Your task to perform on an android device: Empty the shopping cart on ebay. Add "bose quietcomfort 35" to the cart on ebay, then select checkout. Image 0: 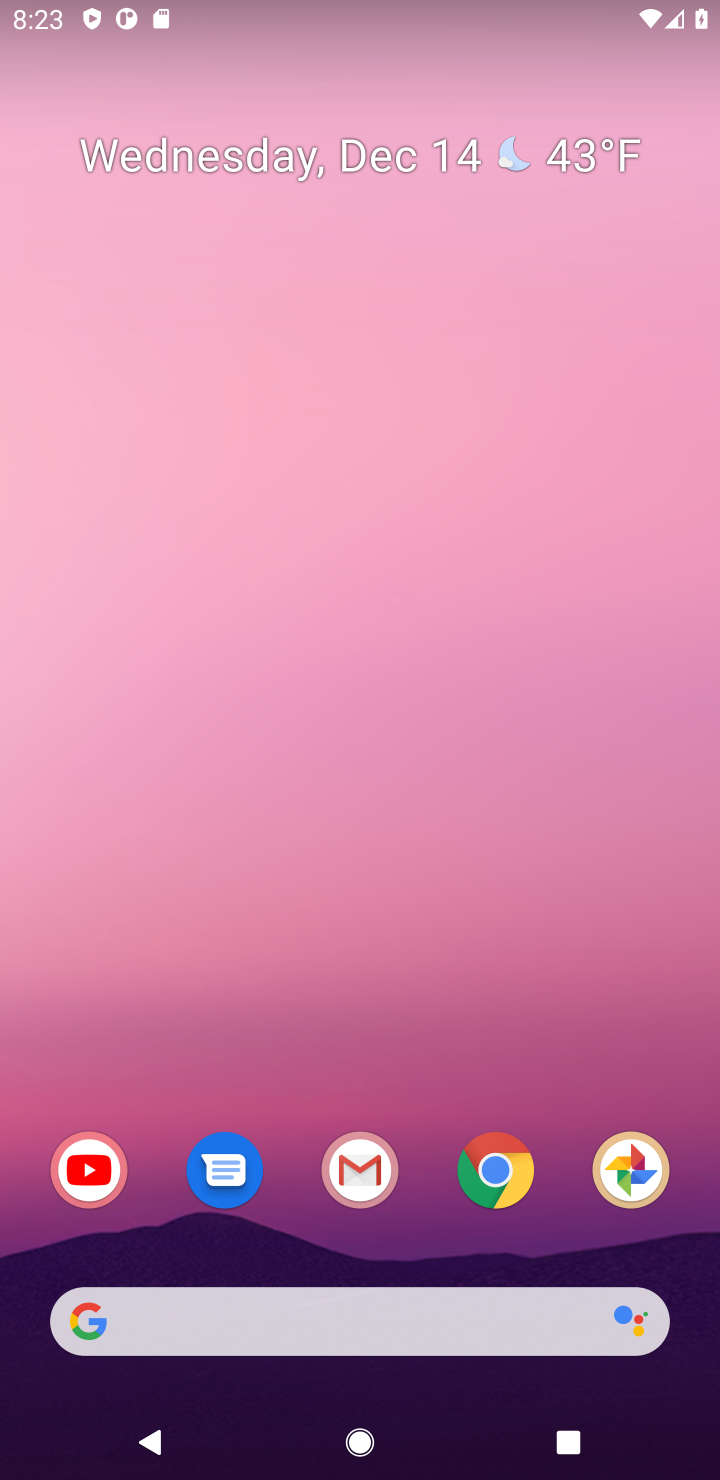
Step 0: click (512, 1173)
Your task to perform on an android device: Empty the shopping cart on ebay. Add "bose quietcomfort 35" to the cart on ebay, then select checkout. Image 1: 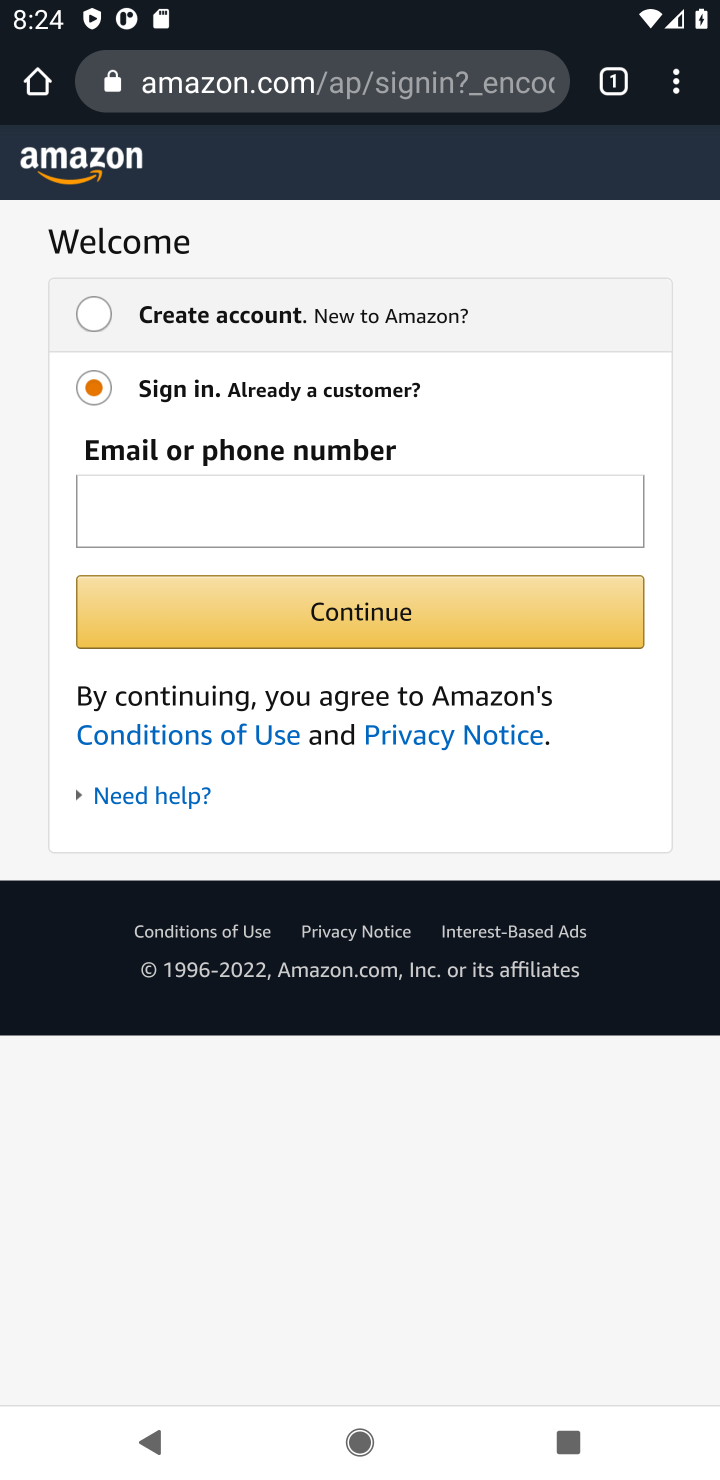
Step 1: click (383, 85)
Your task to perform on an android device: Empty the shopping cart on ebay. Add "bose quietcomfort 35" to the cart on ebay, then select checkout. Image 2: 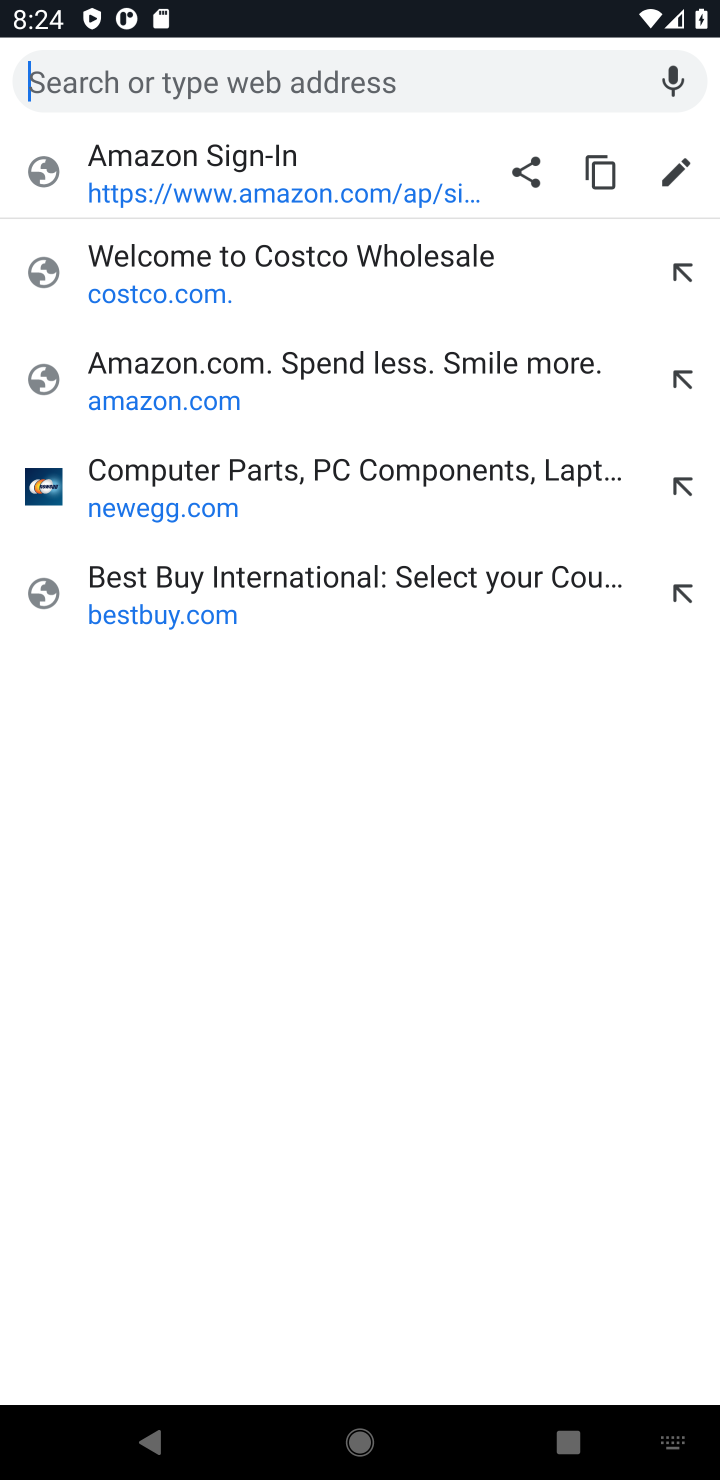
Step 2: type "EBAY"
Your task to perform on an android device: Empty the shopping cart on ebay. Add "bose quietcomfort 35" to the cart on ebay, then select checkout. Image 3: 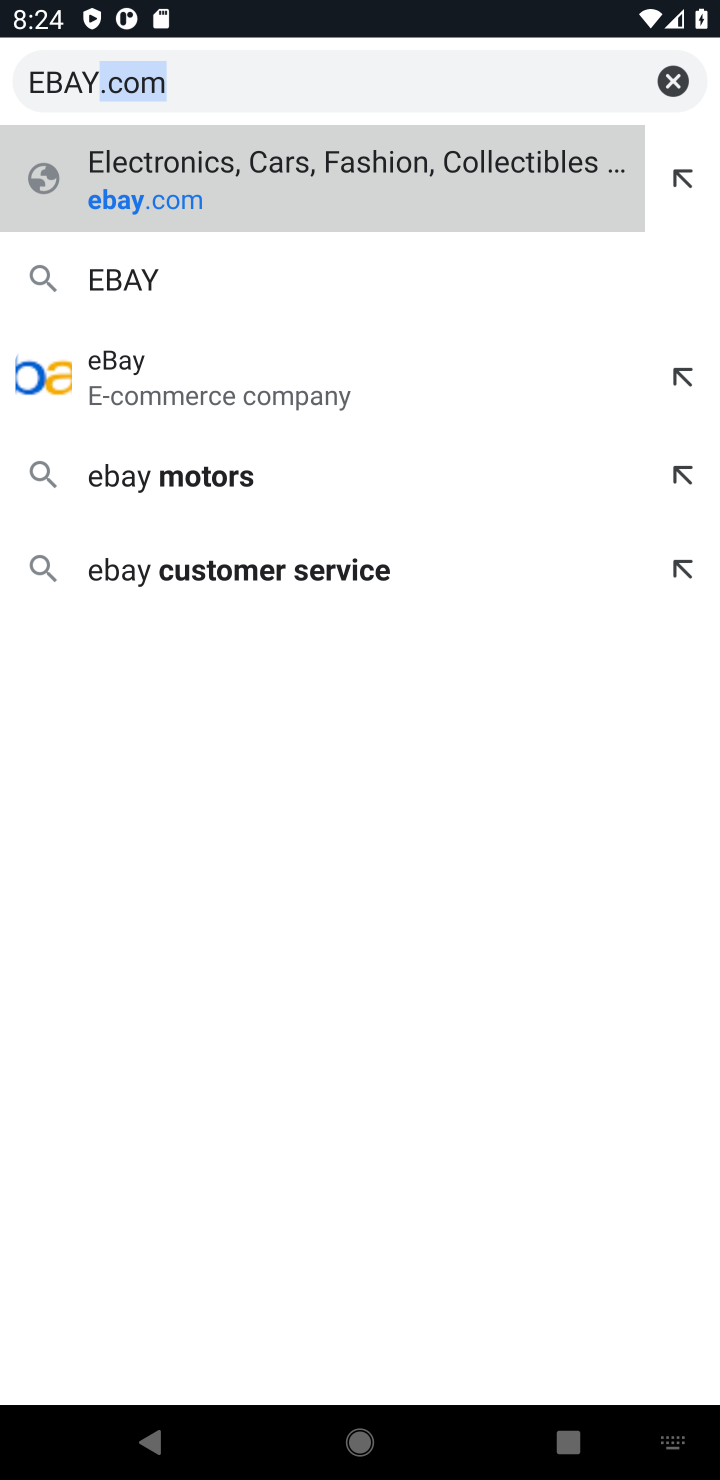
Step 3: click (230, 199)
Your task to perform on an android device: Empty the shopping cart on ebay. Add "bose quietcomfort 35" to the cart on ebay, then select checkout. Image 4: 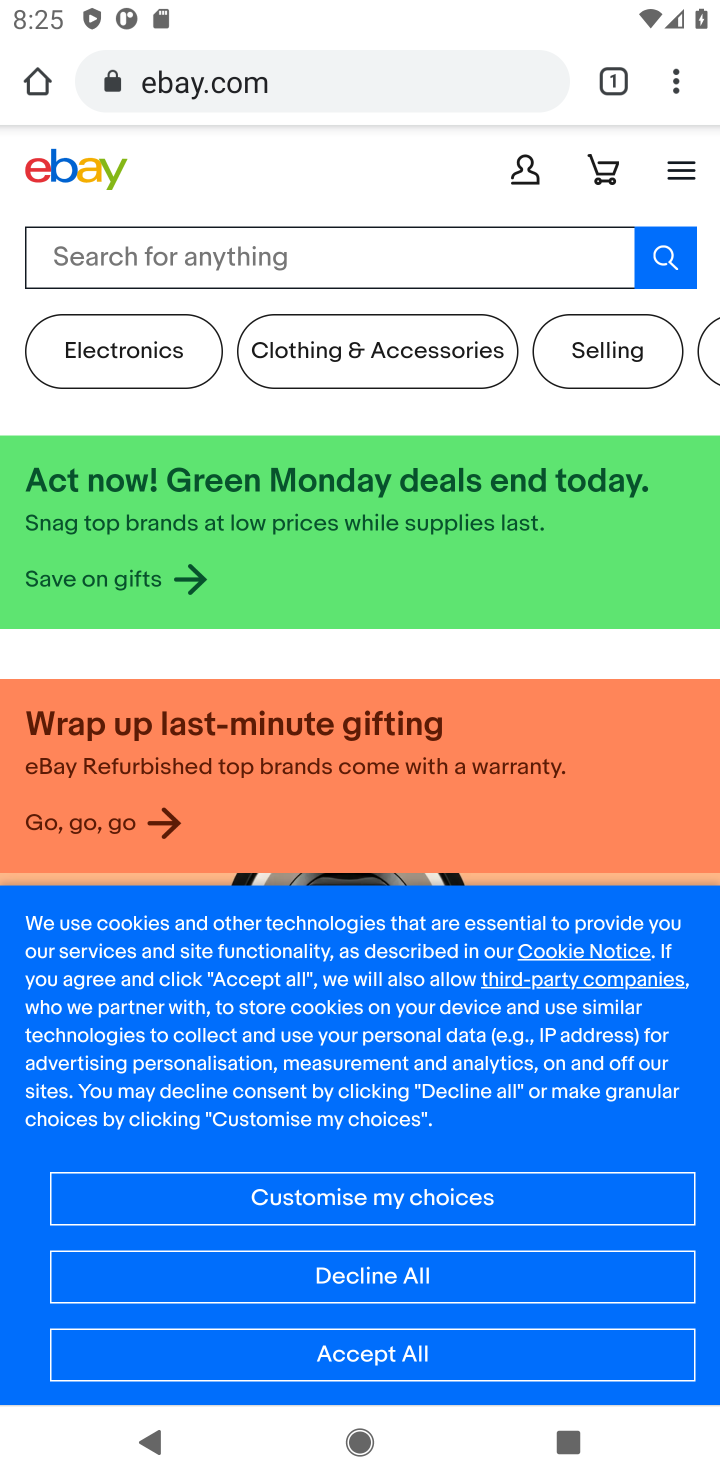
Step 4: click (364, 1356)
Your task to perform on an android device: Empty the shopping cart on ebay. Add "bose quietcomfort 35" to the cart on ebay, then select checkout. Image 5: 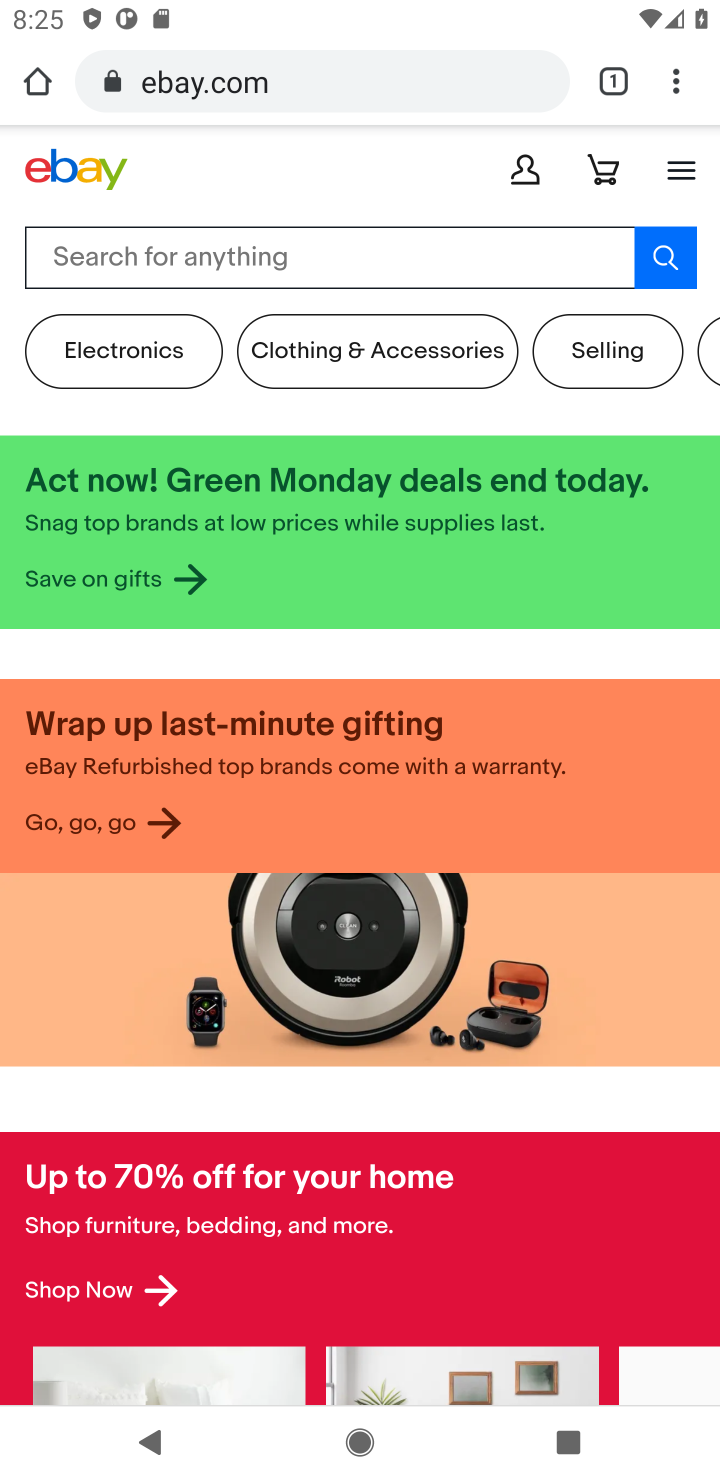
Step 5: click (232, 257)
Your task to perform on an android device: Empty the shopping cart on ebay. Add "bose quietcomfort 35" to the cart on ebay, then select checkout. Image 6: 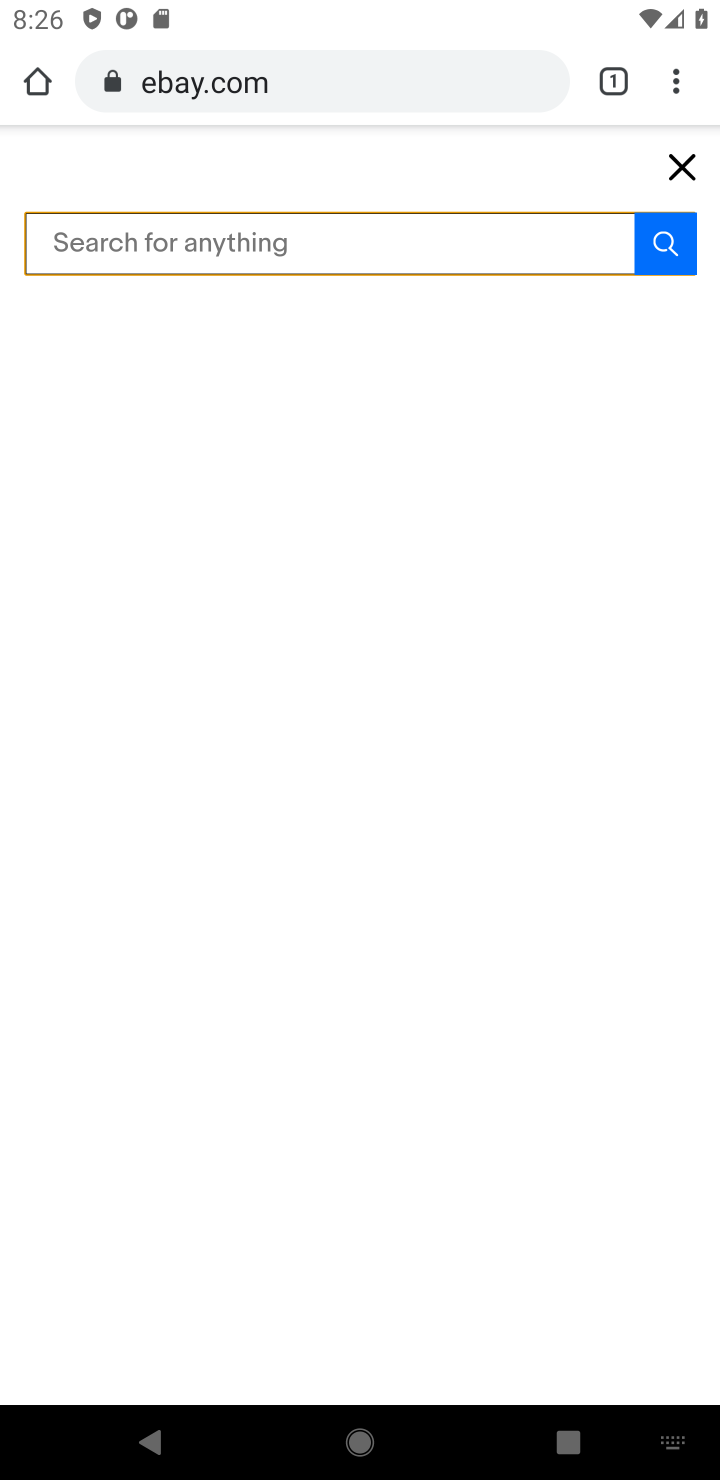
Step 6: type "bose quietcomfort 35"
Your task to perform on an android device: Empty the shopping cart on ebay. Add "bose quietcomfort 35" to the cart on ebay, then select checkout. Image 7: 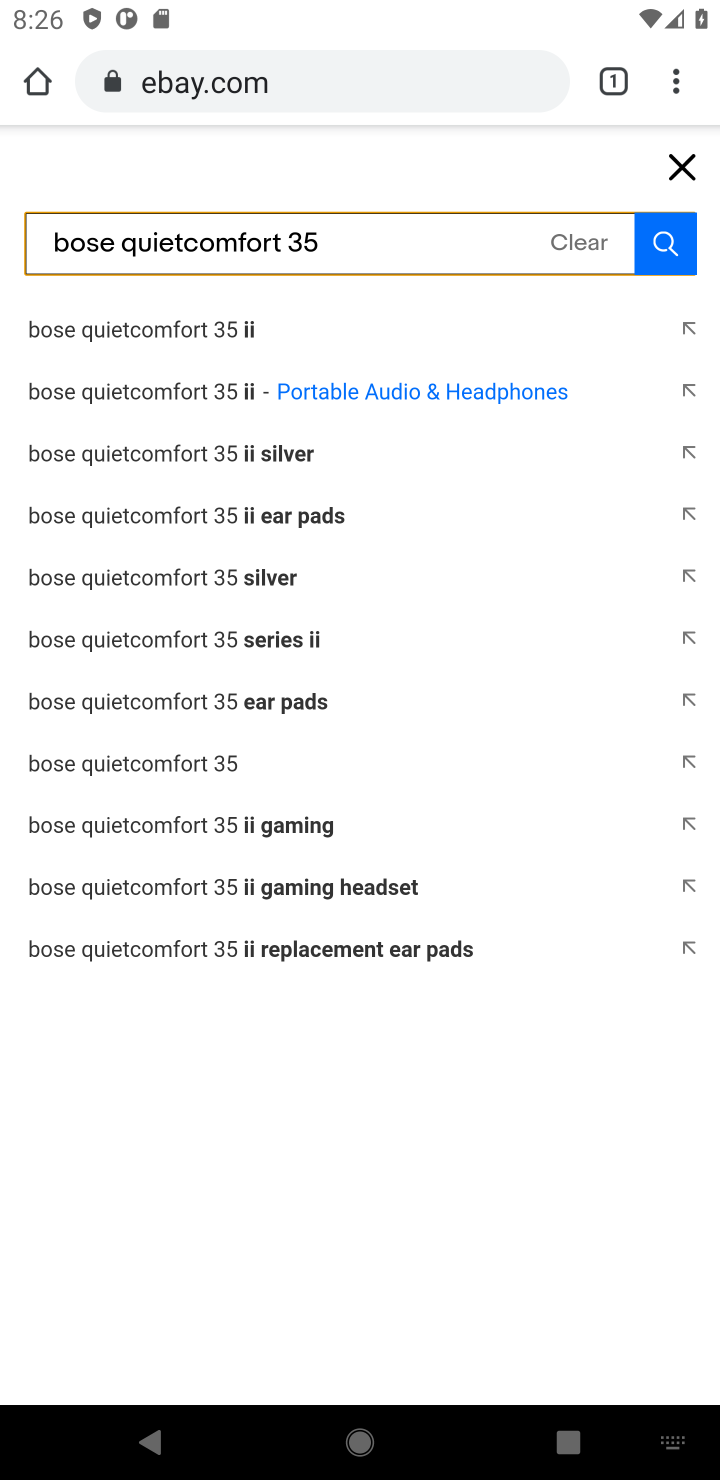
Step 7: click (244, 330)
Your task to perform on an android device: Empty the shopping cart on ebay. Add "bose quietcomfort 35" to the cart on ebay, then select checkout. Image 8: 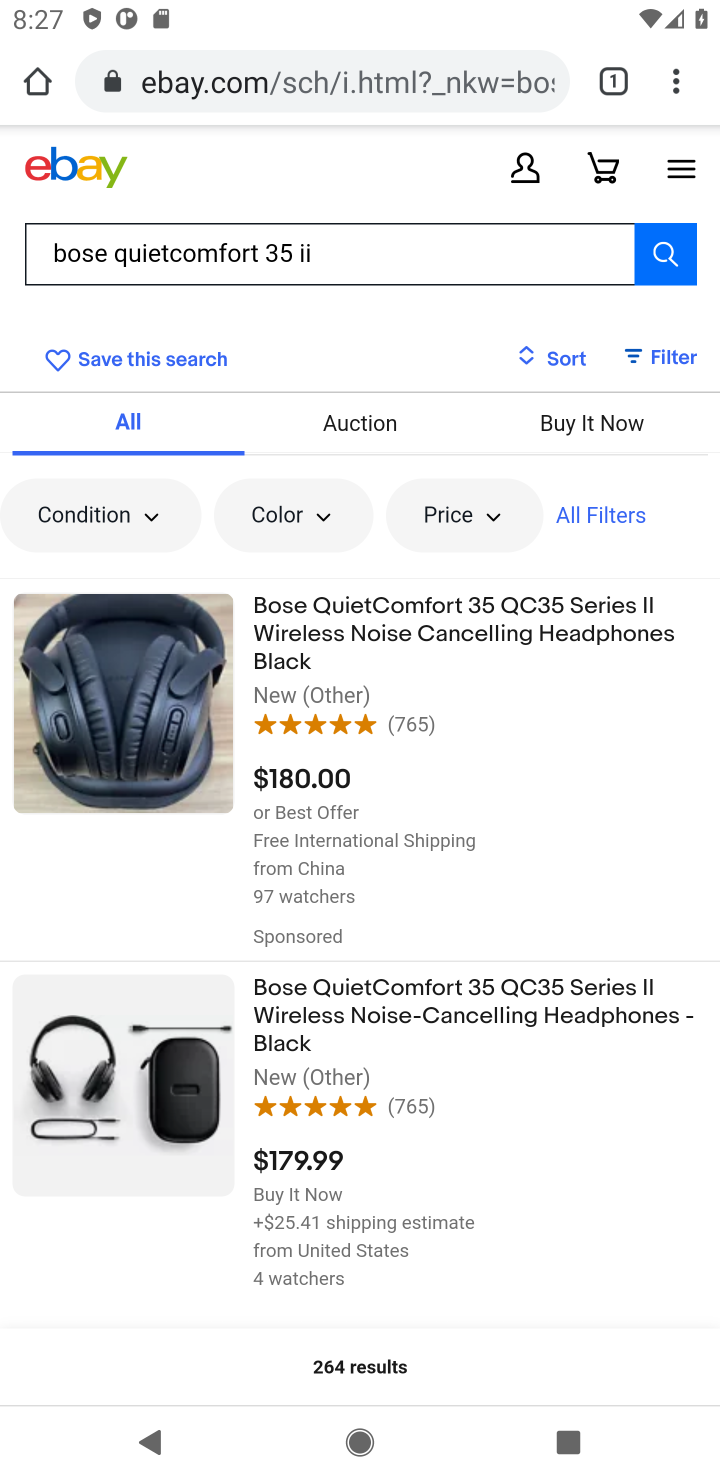
Step 8: click (508, 637)
Your task to perform on an android device: Empty the shopping cart on ebay. Add "bose quietcomfort 35" to the cart on ebay, then select checkout. Image 9: 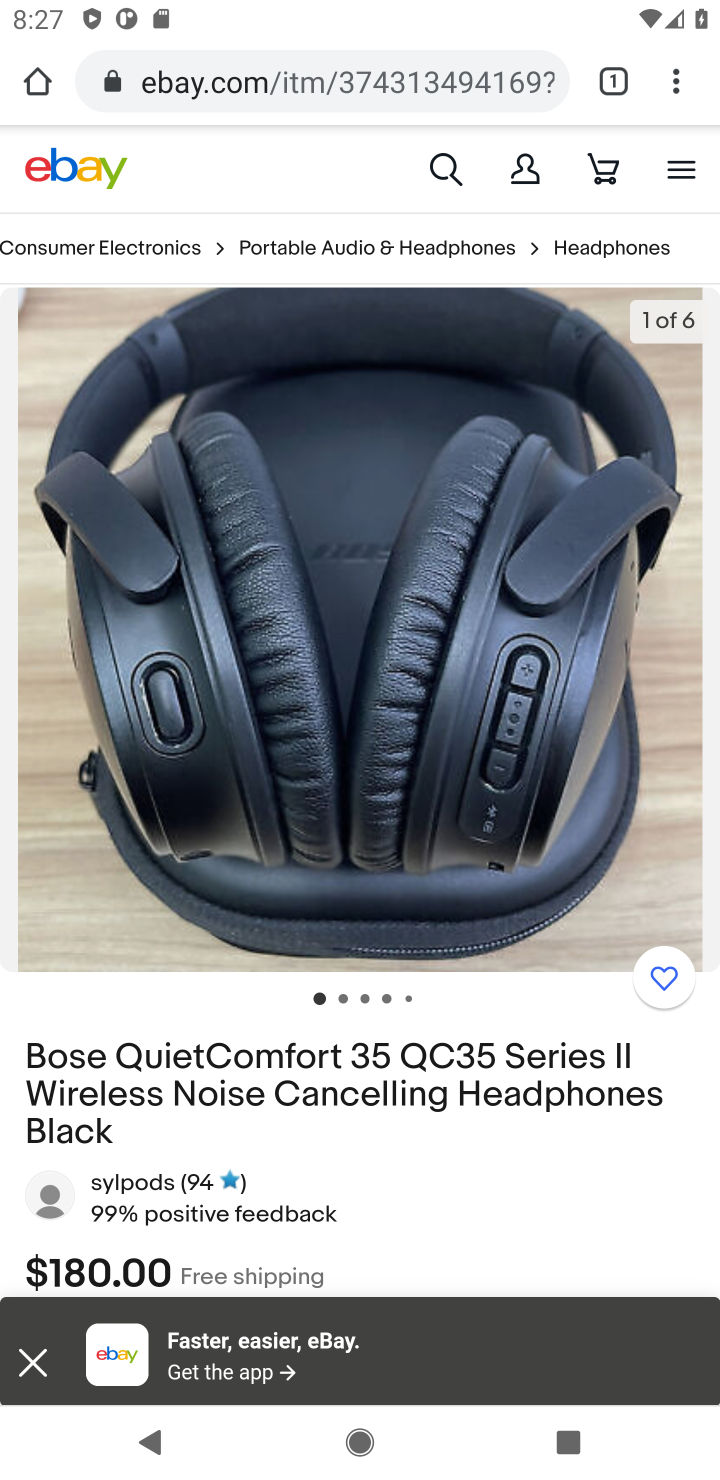
Step 9: drag from (469, 1033) to (466, 160)
Your task to perform on an android device: Empty the shopping cart on ebay. Add "bose quietcomfort 35" to the cart on ebay, then select checkout. Image 10: 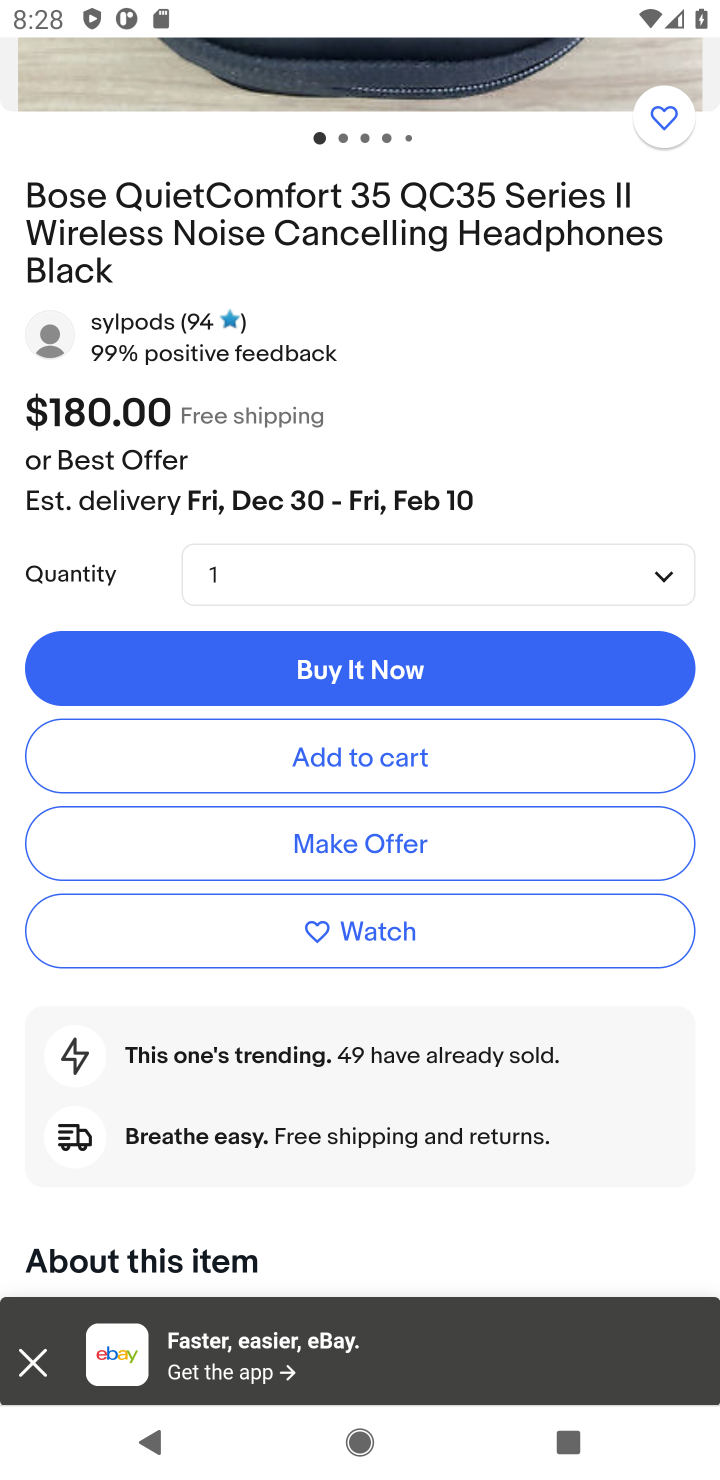
Step 10: click (402, 756)
Your task to perform on an android device: Empty the shopping cart on ebay. Add "bose quietcomfort 35" to the cart on ebay, then select checkout. Image 11: 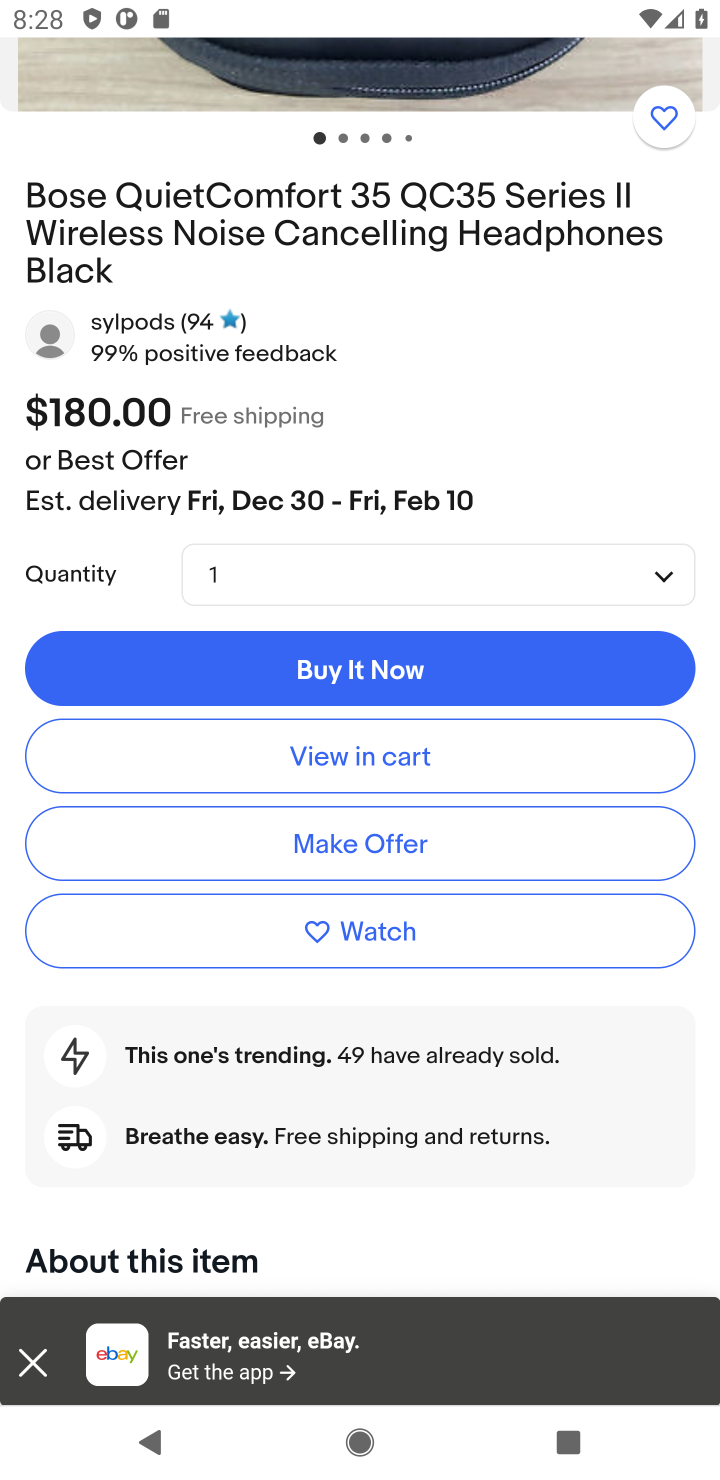
Step 11: click (379, 753)
Your task to perform on an android device: Empty the shopping cart on ebay. Add "bose quietcomfort 35" to the cart on ebay, then select checkout. Image 12: 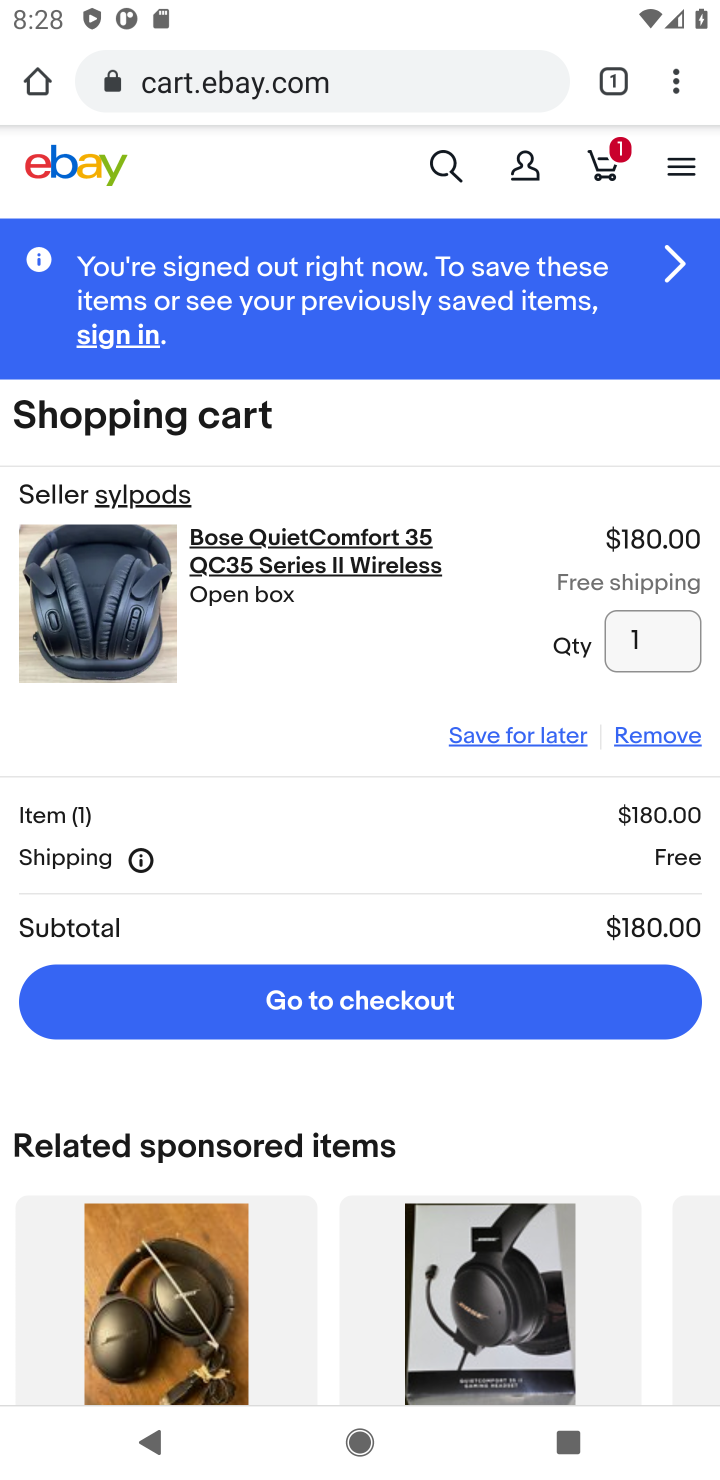
Step 12: click (428, 988)
Your task to perform on an android device: Empty the shopping cart on ebay. Add "bose quietcomfort 35" to the cart on ebay, then select checkout. Image 13: 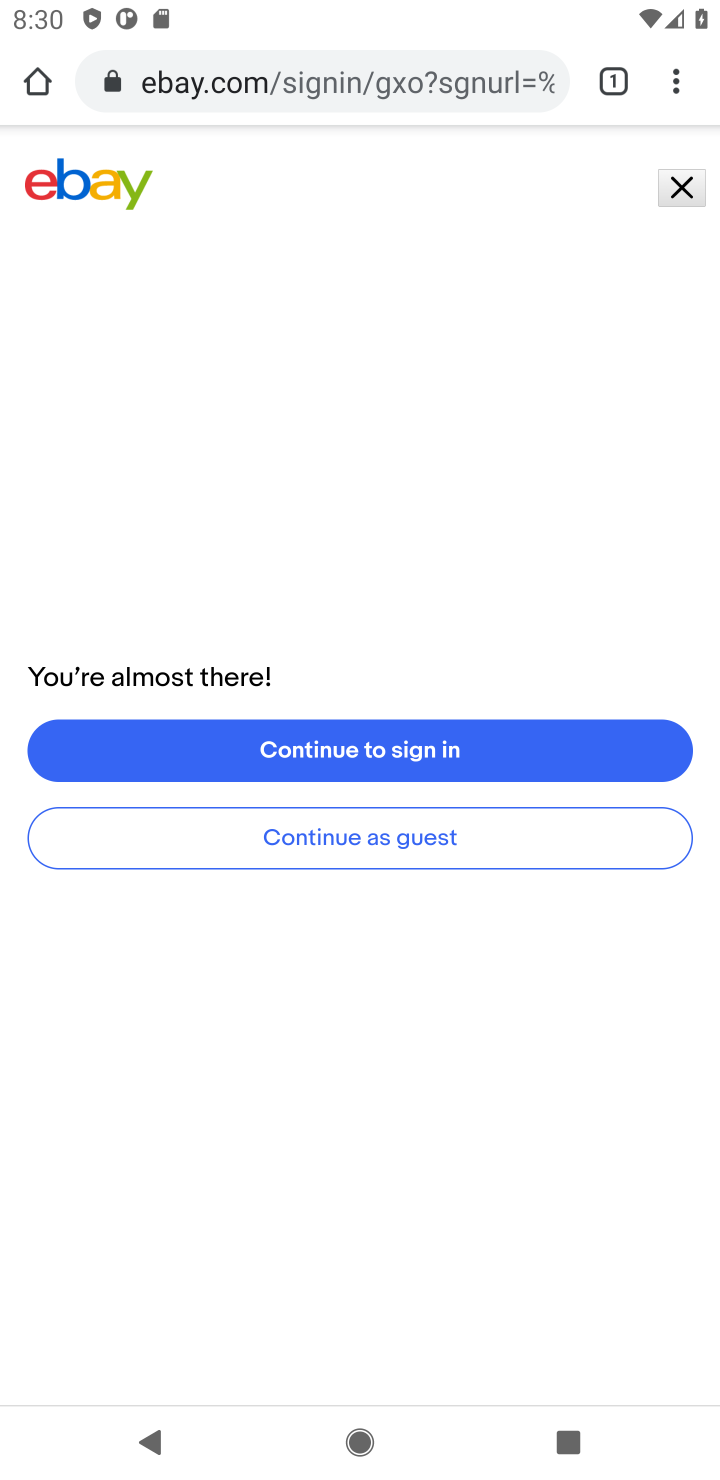
Step 13: task complete